Your task to perform on an android device: Open location settings Image 0: 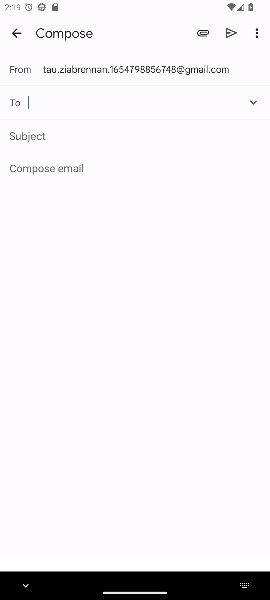
Step 0: press home button
Your task to perform on an android device: Open location settings Image 1: 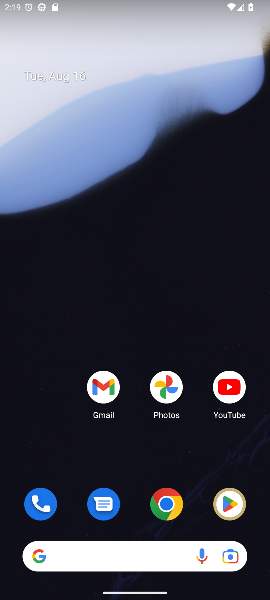
Step 1: drag from (121, 480) to (138, 16)
Your task to perform on an android device: Open location settings Image 2: 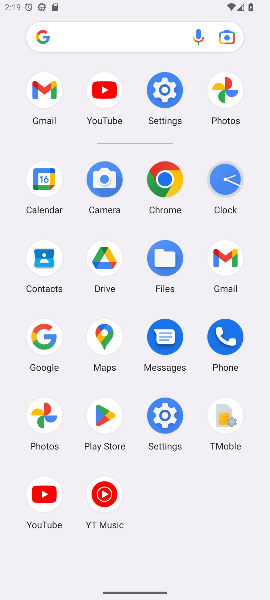
Step 2: click (164, 412)
Your task to perform on an android device: Open location settings Image 3: 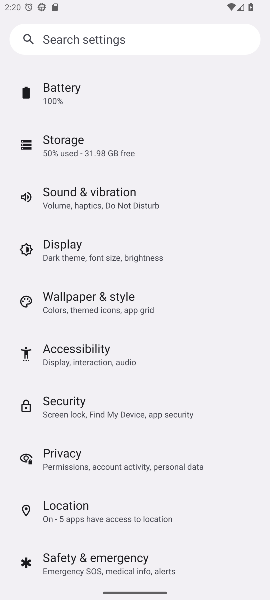
Step 3: click (67, 503)
Your task to perform on an android device: Open location settings Image 4: 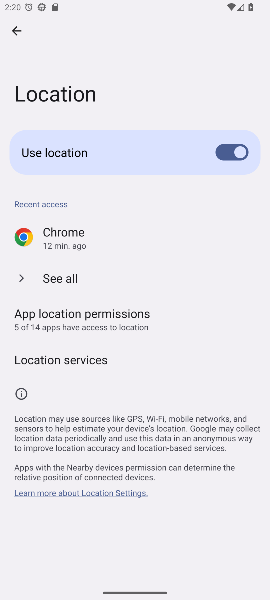
Step 4: task complete